Your task to perform on an android device: Find coffee shops on Maps Image 0: 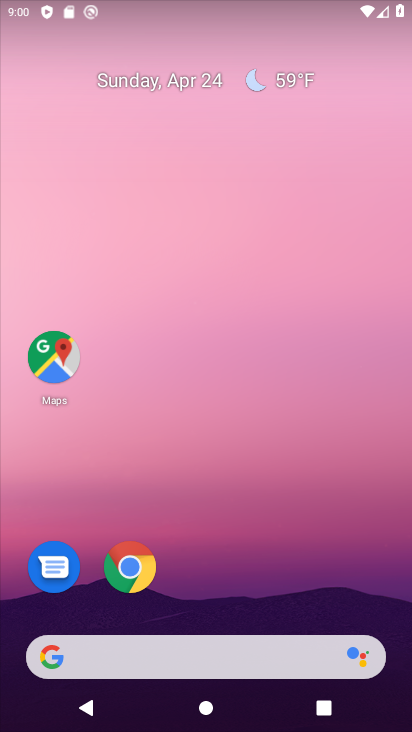
Step 0: click (49, 347)
Your task to perform on an android device: Find coffee shops on Maps Image 1: 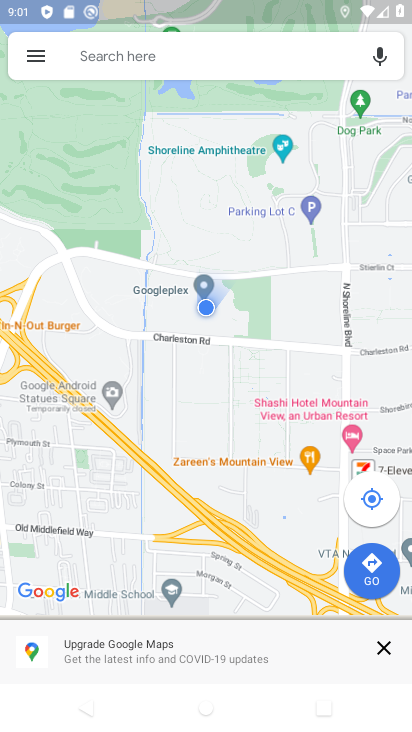
Step 1: click (101, 54)
Your task to perform on an android device: Find coffee shops on Maps Image 2: 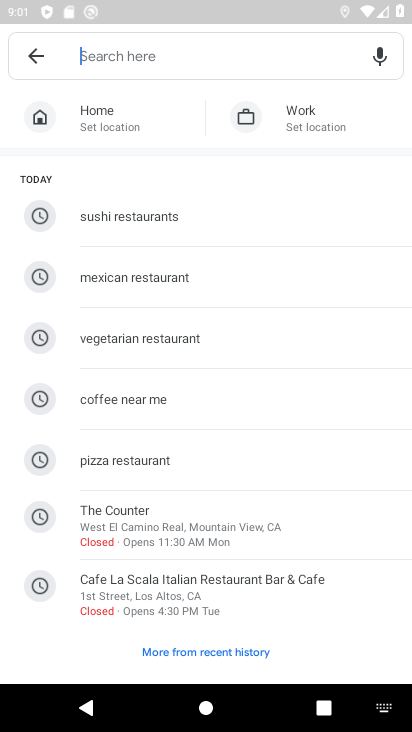
Step 2: type "coffee shops"
Your task to perform on an android device: Find coffee shops on Maps Image 3: 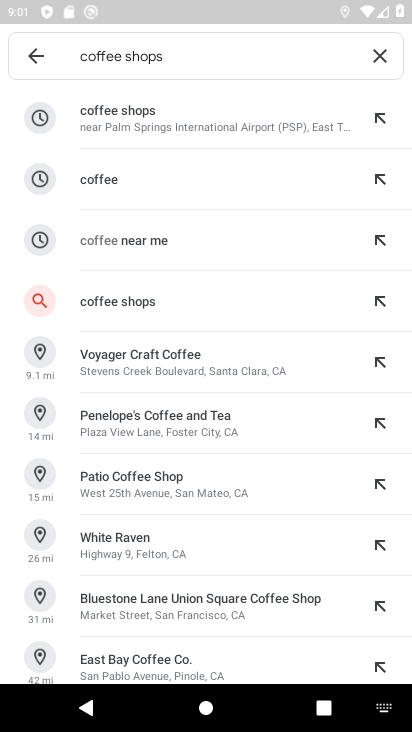
Step 3: click (139, 110)
Your task to perform on an android device: Find coffee shops on Maps Image 4: 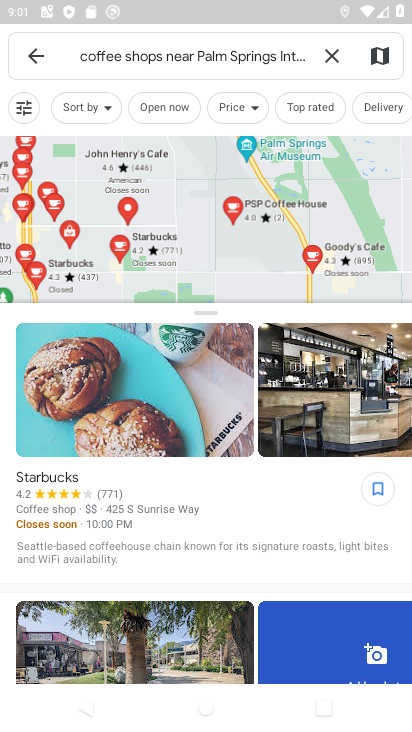
Step 4: task complete